Your task to perform on an android device: turn off data saver in the chrome app Image 0: 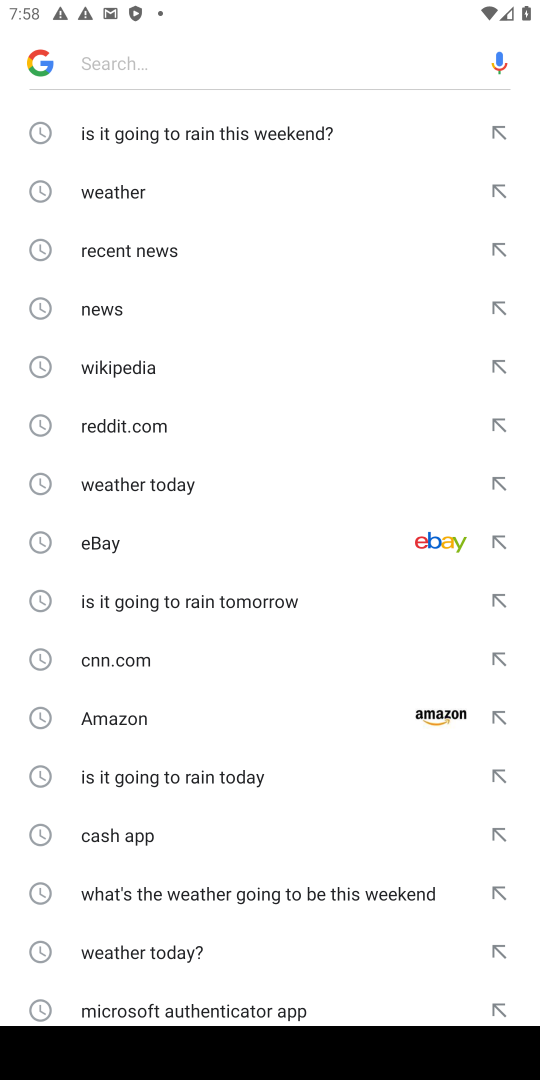
Step 0: press home button
Your task to perform on an android device: turn off data saver in the chrome app Image 1: 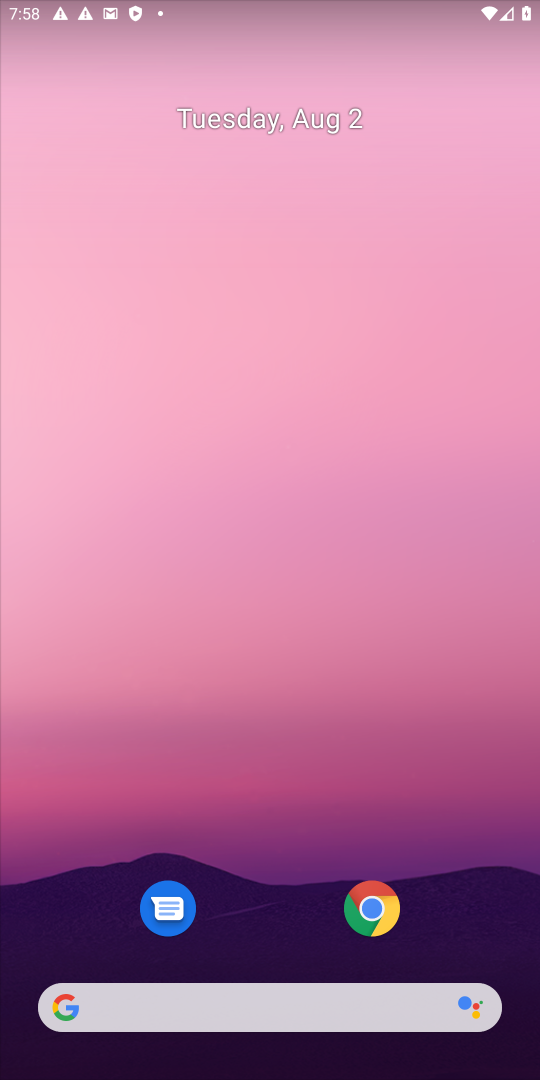
Step 1: click (390, 903)
Your task to perform on an android device: turn off data saver in the chrome app Image 2: 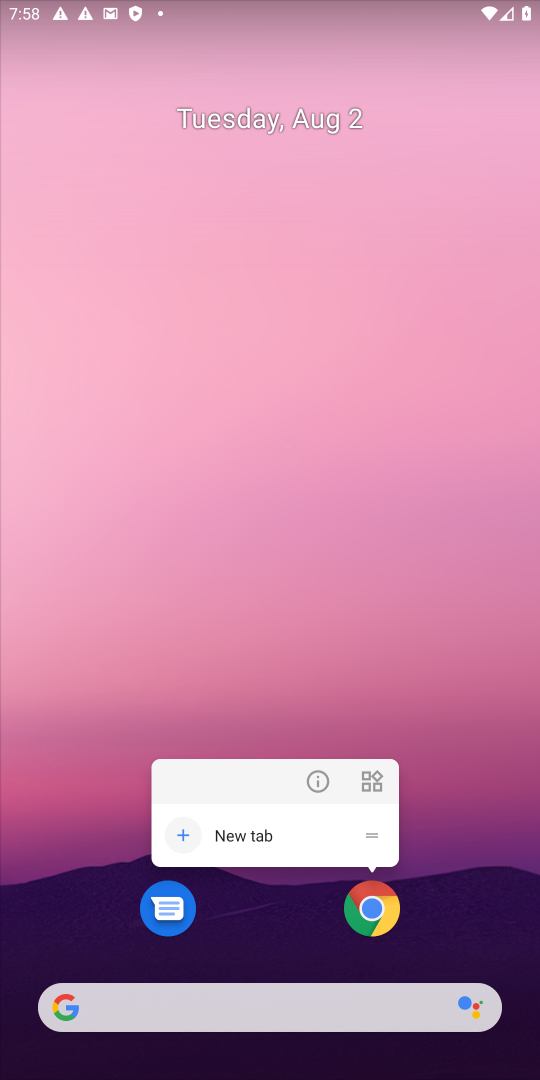
Step 2: click (390, 903)
Your task to perform on an android device: turn off data saver in the chrome app Image 3: 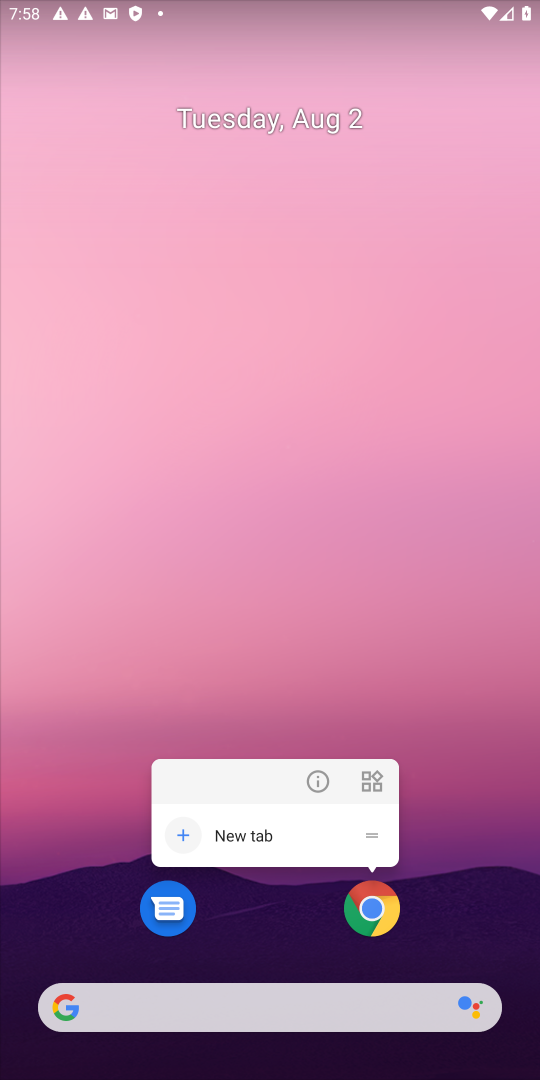
Step 3: click (374, 914)
Your task to perform on an android device: turn off data saver in the chrome app Image 4: 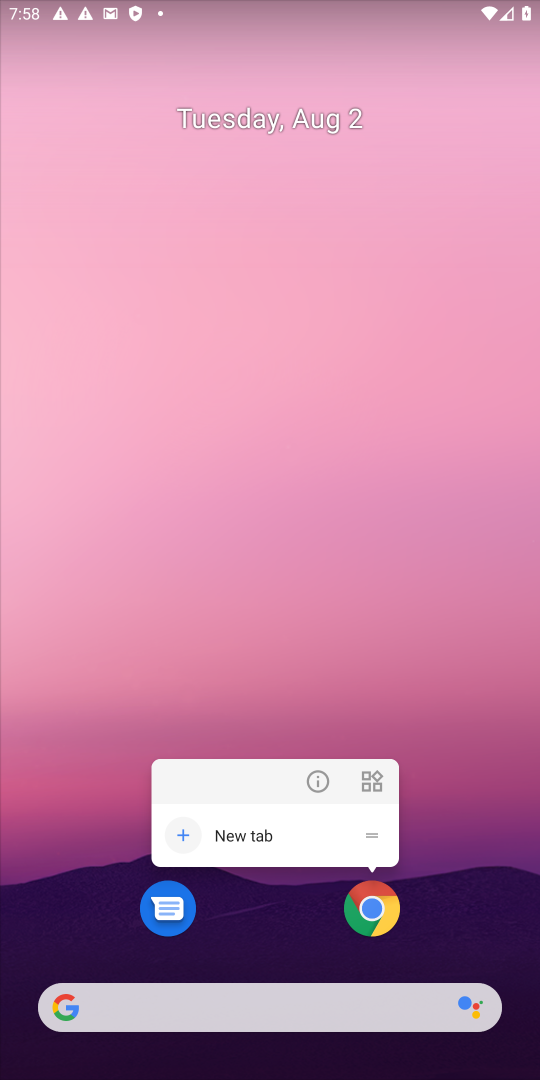
Step 4: click (374, 914)
Your task to perform on an android device: turn off data saver in the chrome app Image 5: 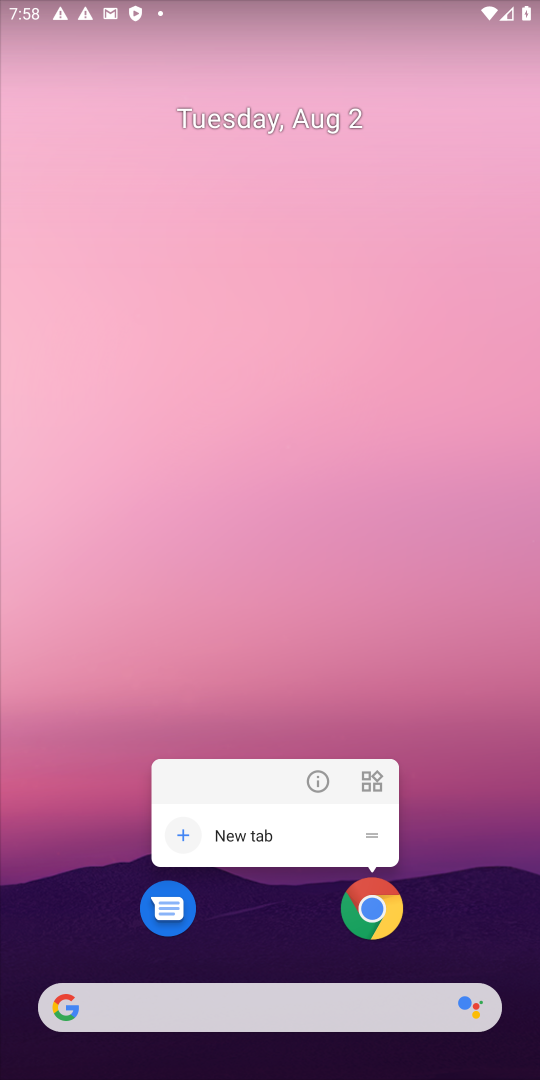
Step 5: click (393, 888)
Your task to perform on an android device: turn off data saver in the chrome app Image 6: 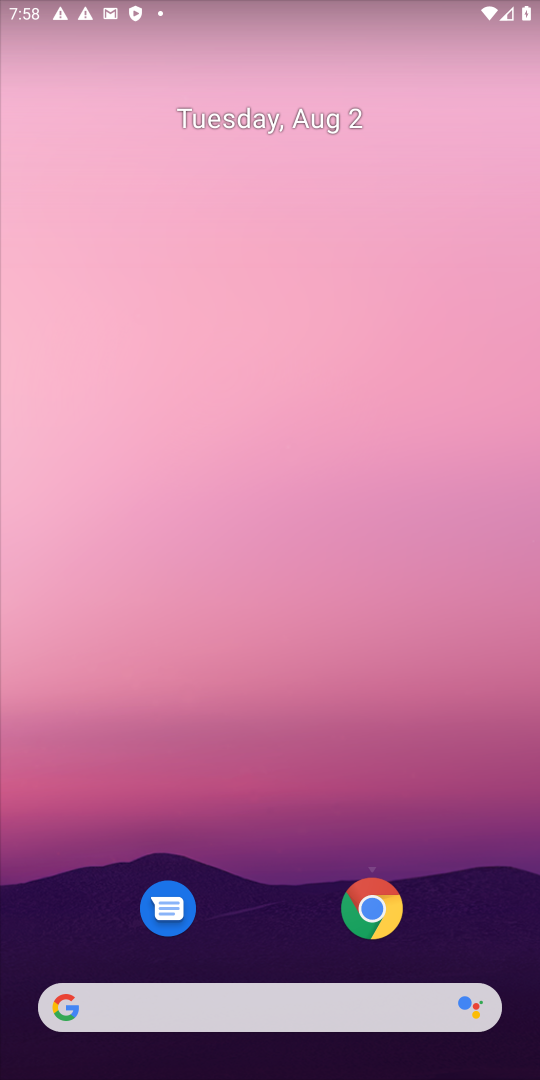
Step 6: click (377, 927)
Your task to perform on an android device: turn off data saver in the chrome app Image 7: 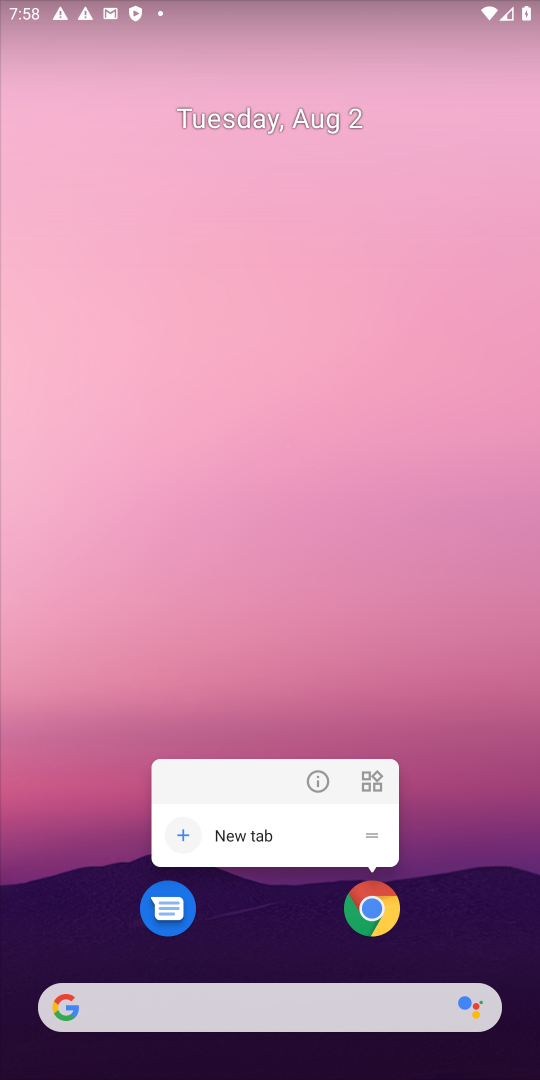
Step 7: click (396, 908)
Your task to perform on an android device: turn off data saver in the chrome app Image 8: 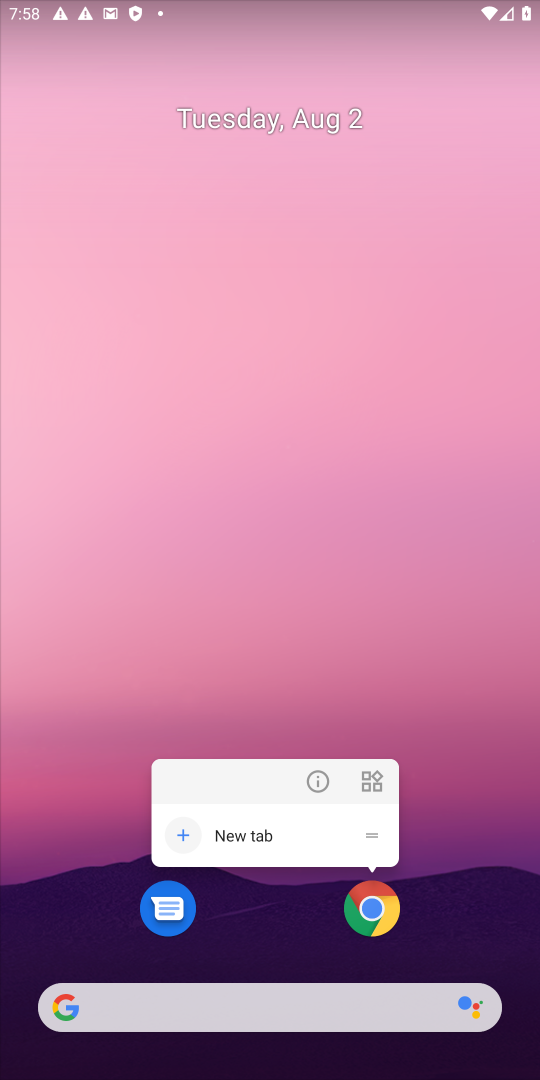
Step 8: click (376, 908)
Your task to perform on an android device: turn off data saver in the chrome app Image 9: 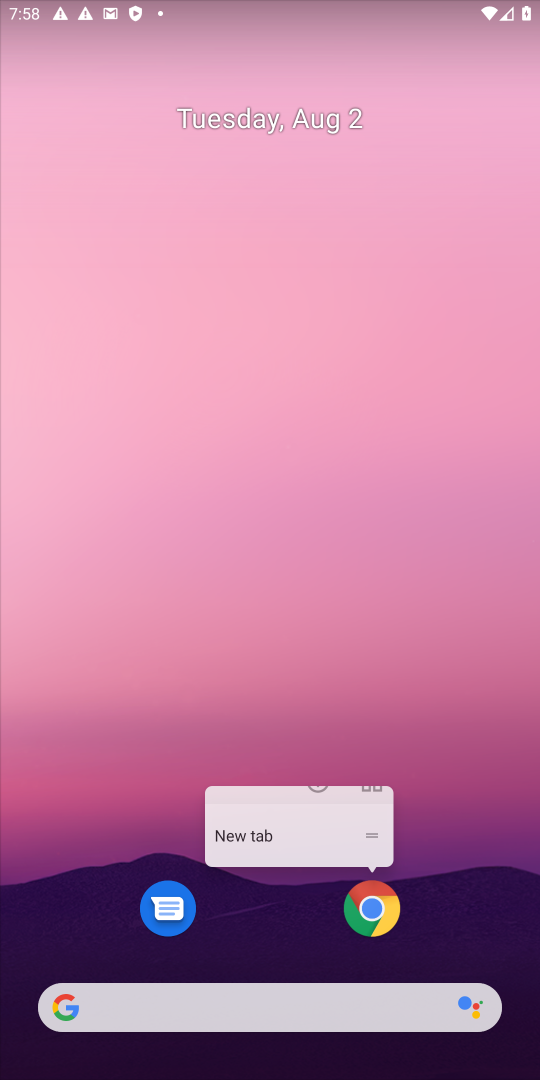
Step 9: click (376, 908)
Your task to perform on an android device: turn off data saver in the chrome app Image 10: 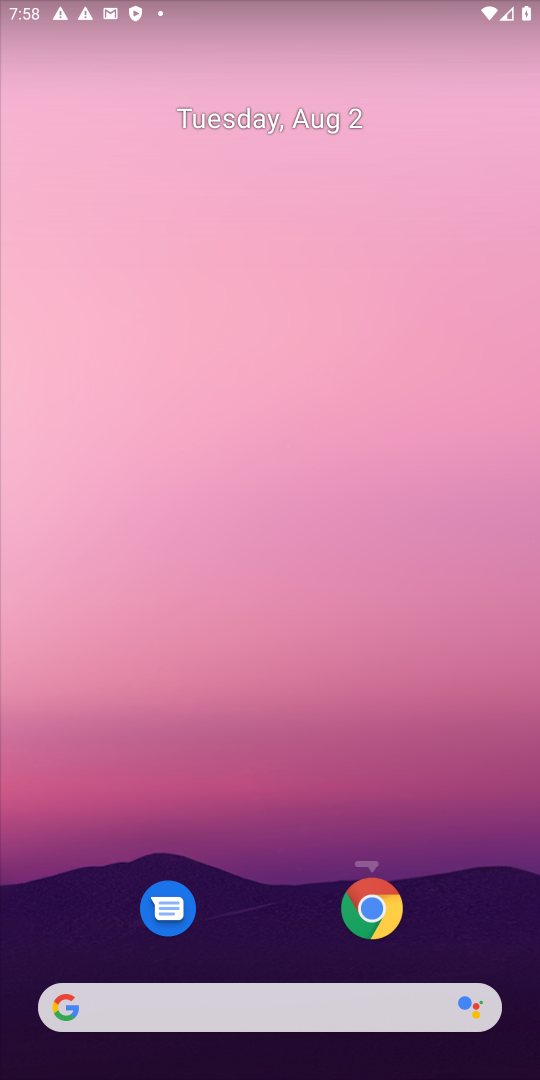
Step 10: click (376, 908)
Your task to perform on an android device: turn off data saver in the chrome app Image 11: 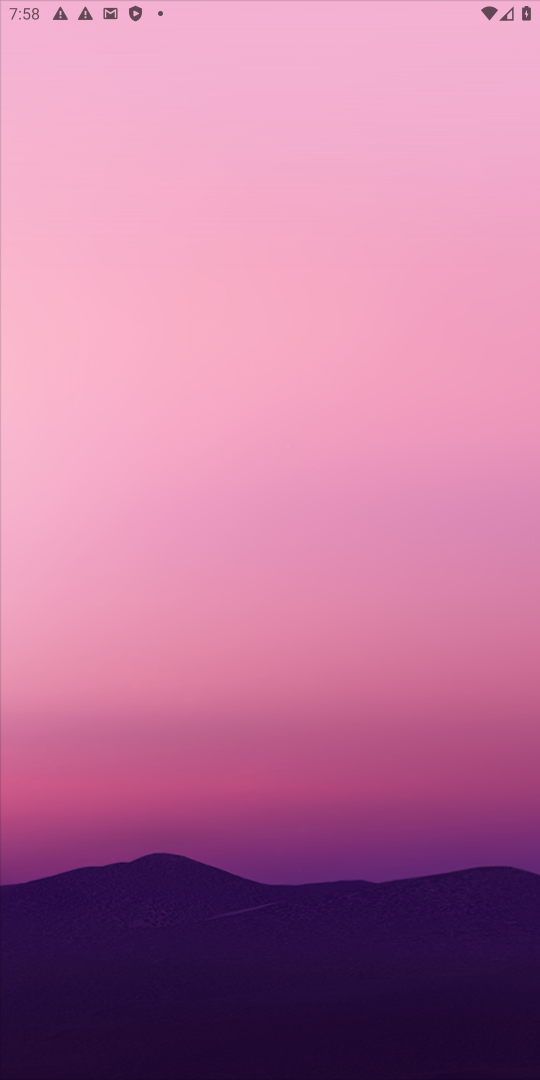
Step 11: click (376, 908)
Your task to perform on an android device: turn off data saver in the chrome app Image 12: 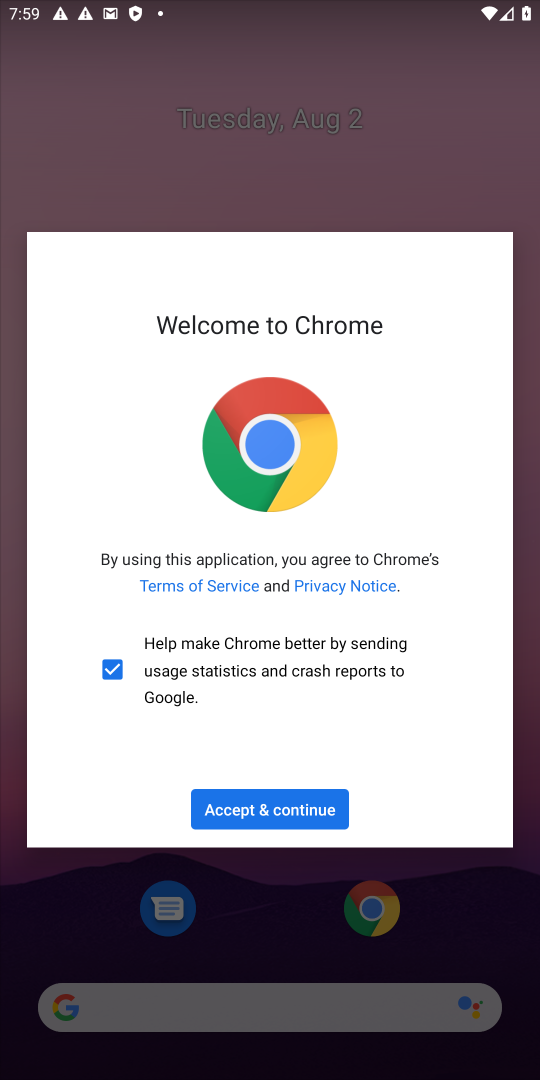
Step 12: click (305, 808)
Your task to perform on an android device: turn off data saver in the chrome app Image 13: 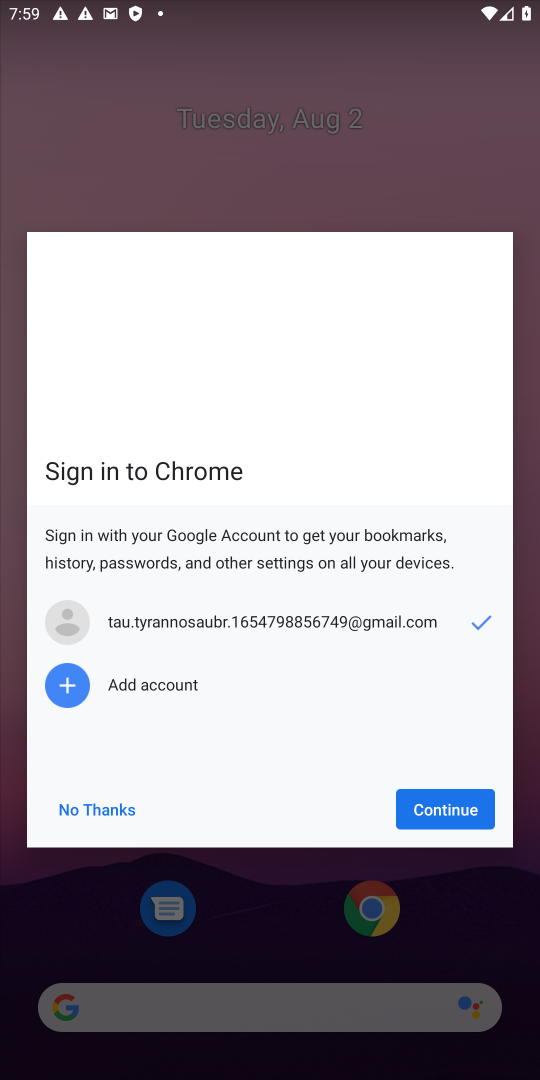
Step 13: click (469, 802)
Your task to perform on an android device: turn off data saver in the chrome app Image 14: 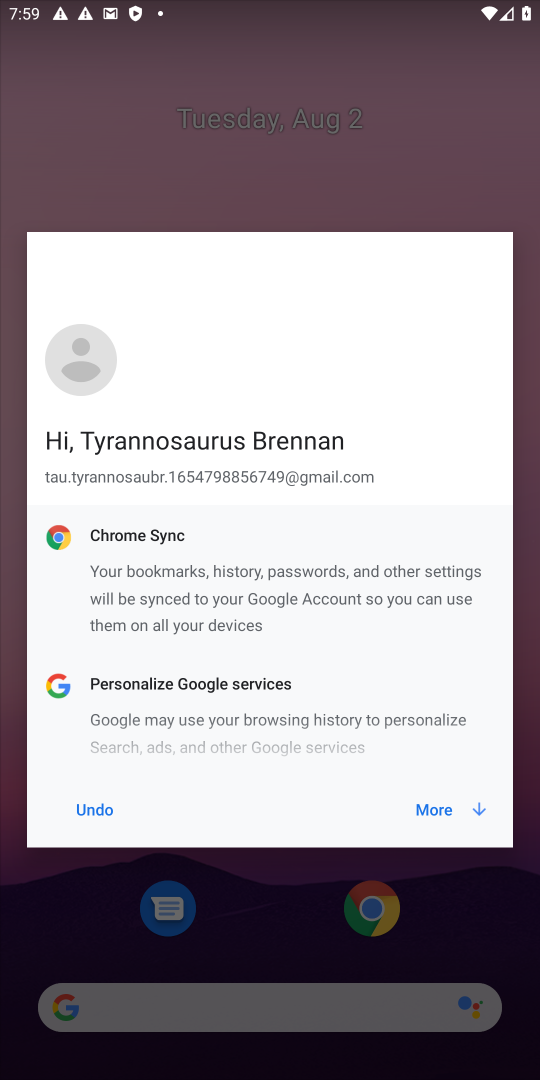
Step 14: click (421, 816)
Your task to perform on an android device: turn off data saver in the chrome app Image 15: 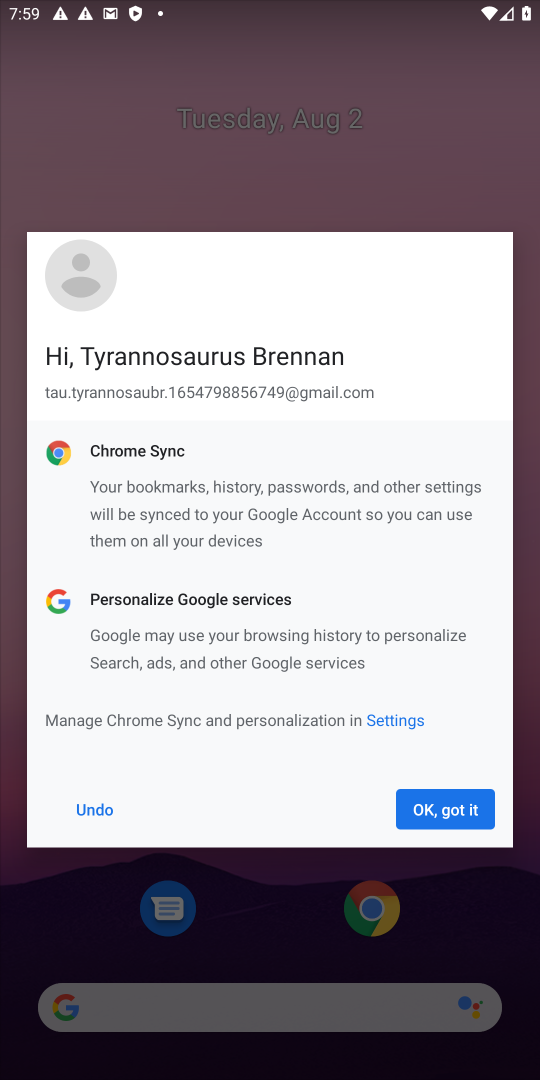
Step 15: click (434, 814)
Your task to perform on an android device: turn off data saver in the chrome app Image 16: 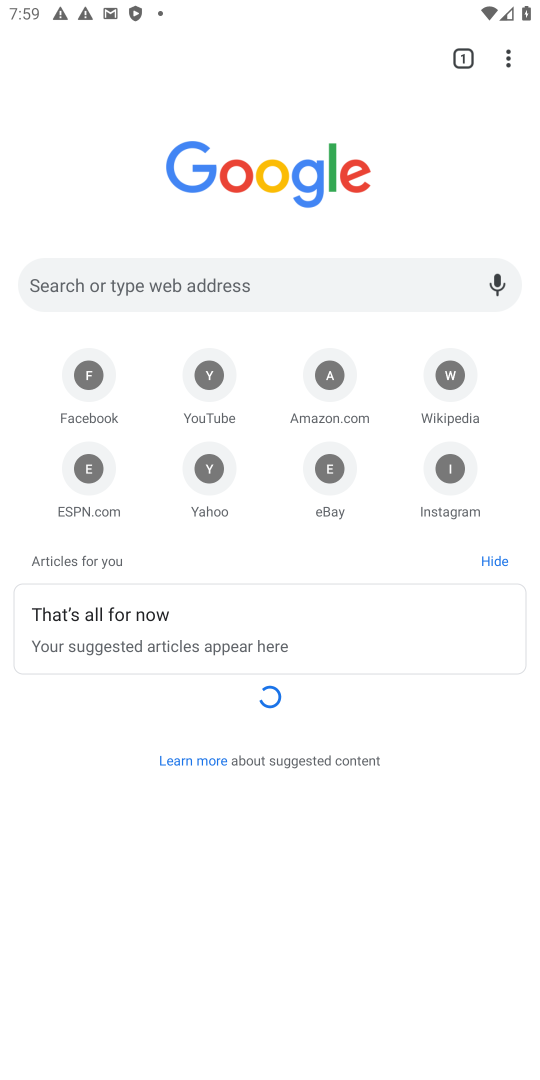
Step 16: click (506, 52)
Your task to perform on an android device: turn off data saver in the chrome app Image 17: 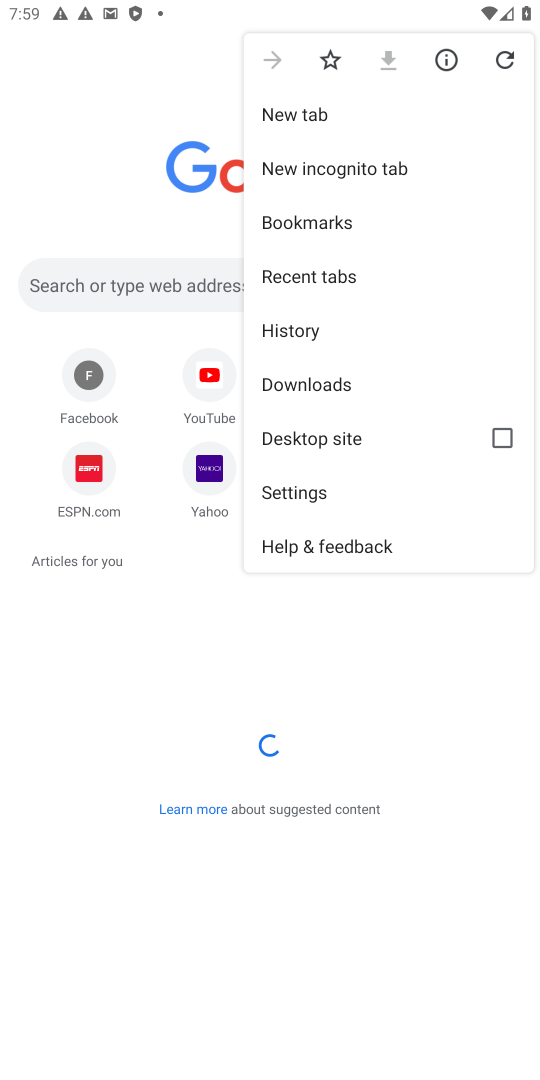
Step 17: click (314, 499)
Your task to perform on an android device: turn off data saver in the chrome app Image 18: 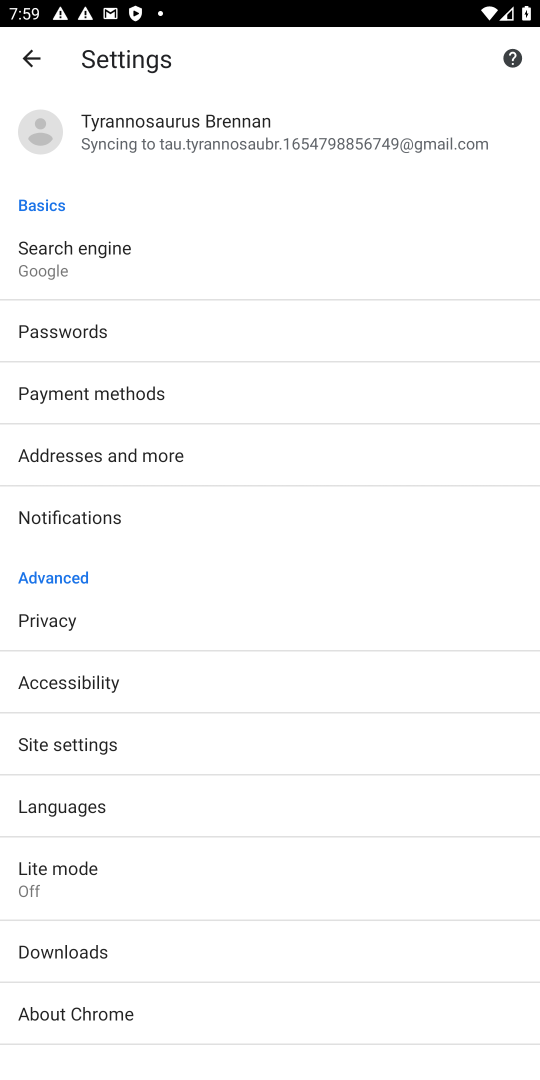
Step 18: click (60, 882)
Your task to perform on an android device: turn off data saver in the chrome app Image 19: 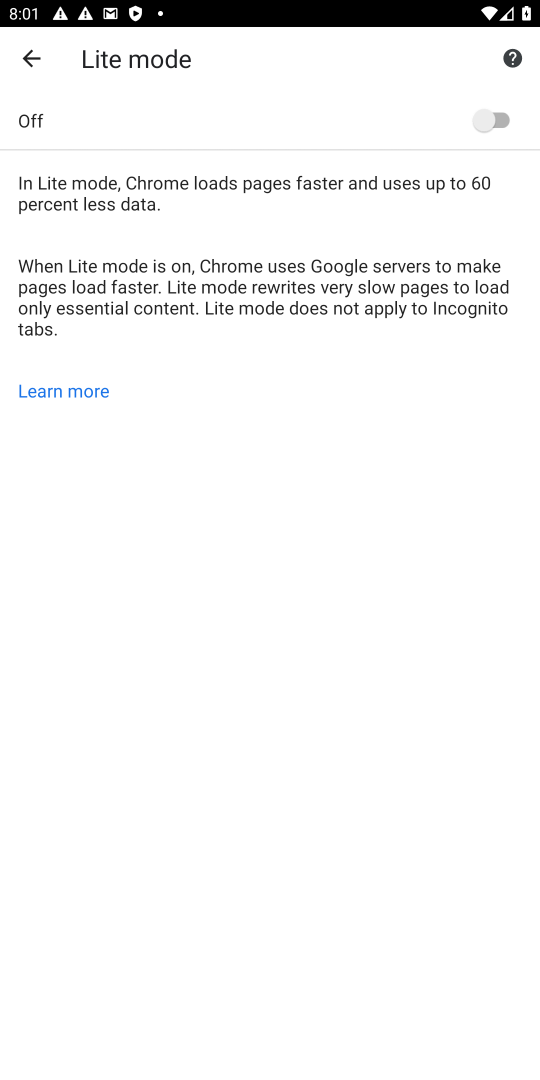
Step 19: task complete